Your task to perform on an android device: change the clock style Image 0: 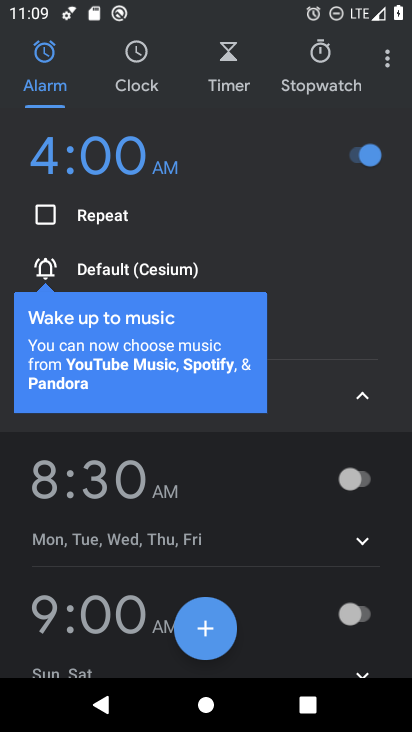
Step 0: press home button
Your task to perform on an android device: change the clock style Image 1: 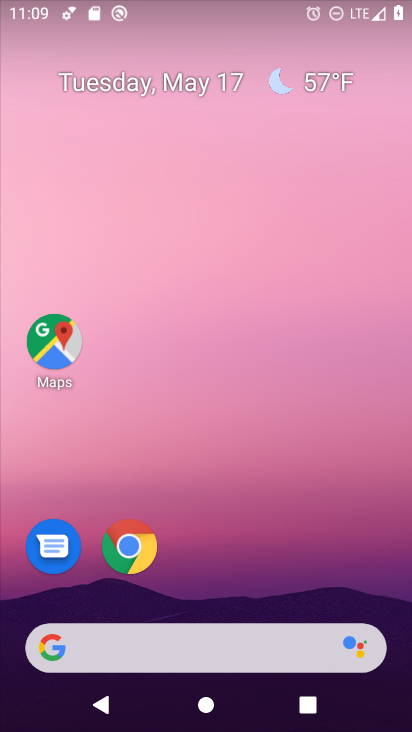
Step 1: drag from (232, 563) to (362, 0)
Your task to perform on an android device: change the clock style Image 2: 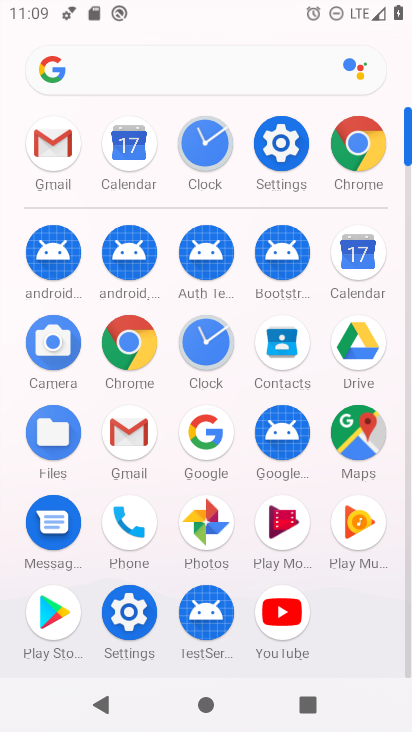
Step 2: click (197, 139)
Your task to perform on an android device: change the clock style Image 3: 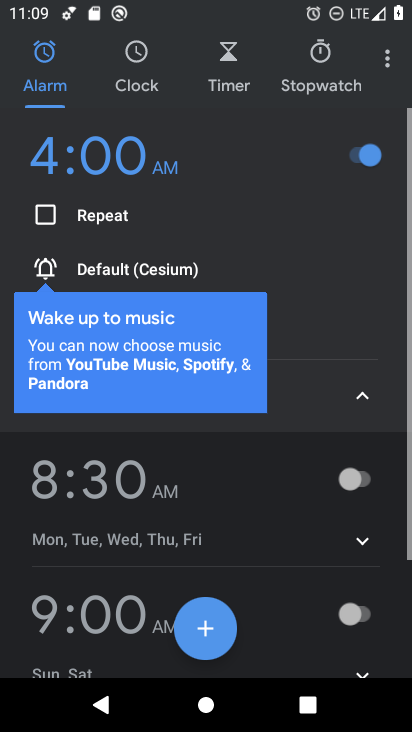
Step 3: click (383, 65)
Your task to perform on an android device: change the clock style Image 4: 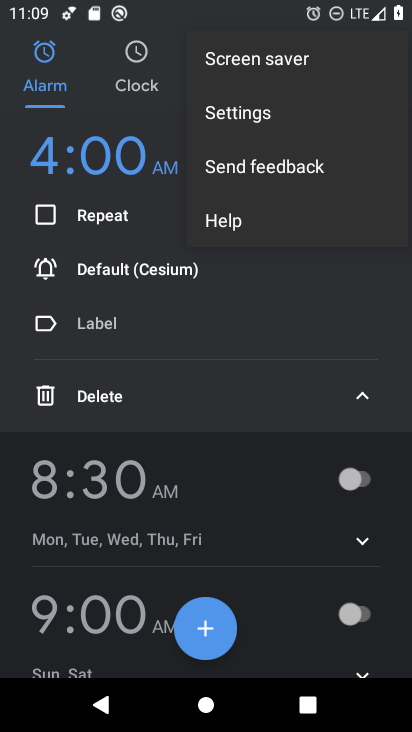
Step 4: click (235, 121)
Your task to perform on an android device: change the clock style Image 5: 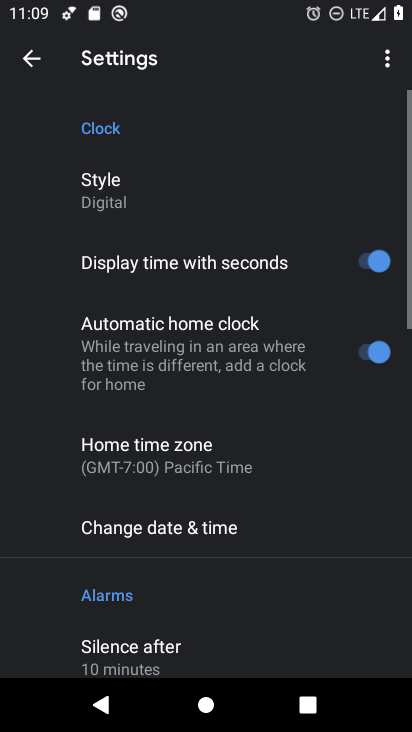
Step 5: click (118, 198)
Your task to perform on an android device: change the clock style Image 6: 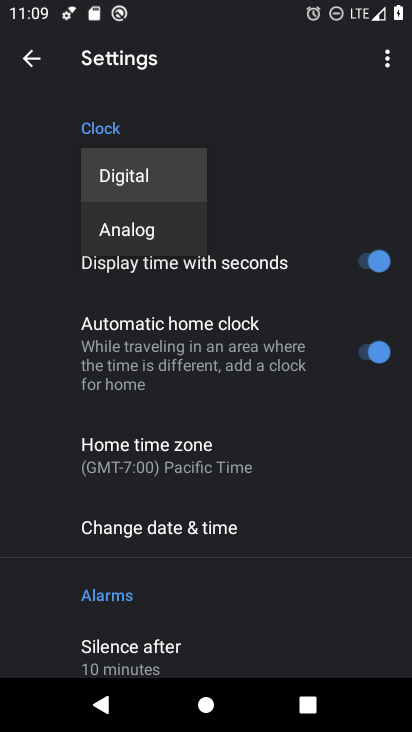
Step 6: click (131, 232)
Your task to perform on an android device: change the clock style Image 7: 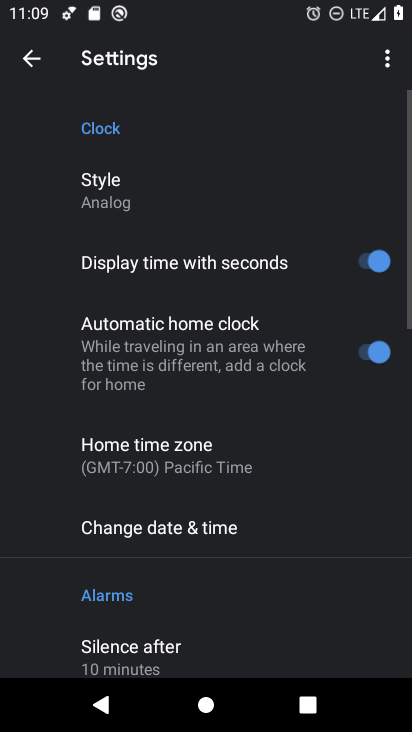
Step 7: task complete